Your task to perform on an android device: turn on the 24-hour format for clock Image 0: 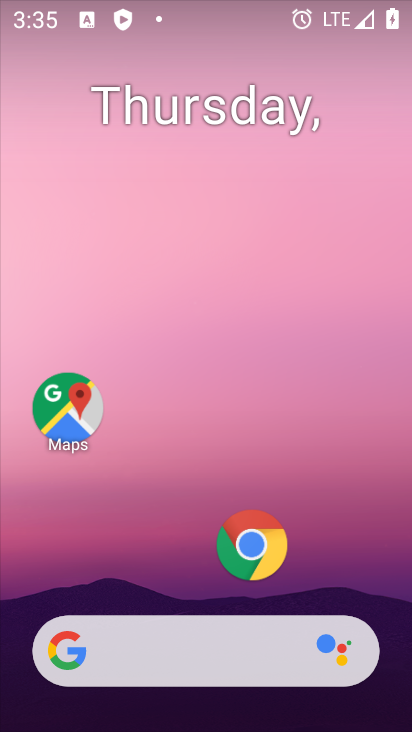
Step 0: drag from (336, 594) to (383, 22)
Your task to perform on an android device: turn on the 24-hour format for clock Image 1: 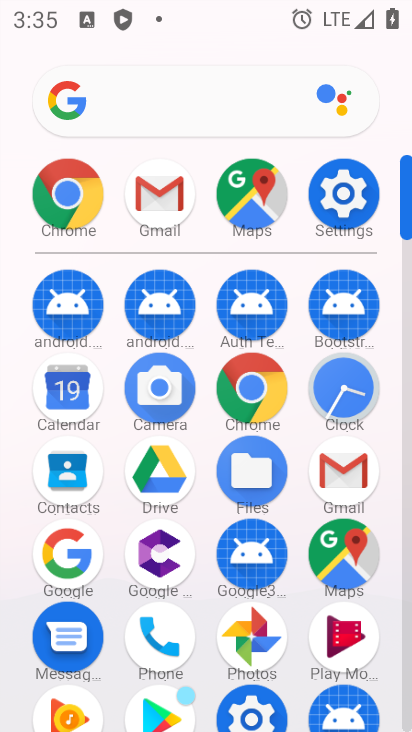
Step 1: click (327, 396)
Your task to perform on an android device: turn on the 24-hour format for clock Image 2: 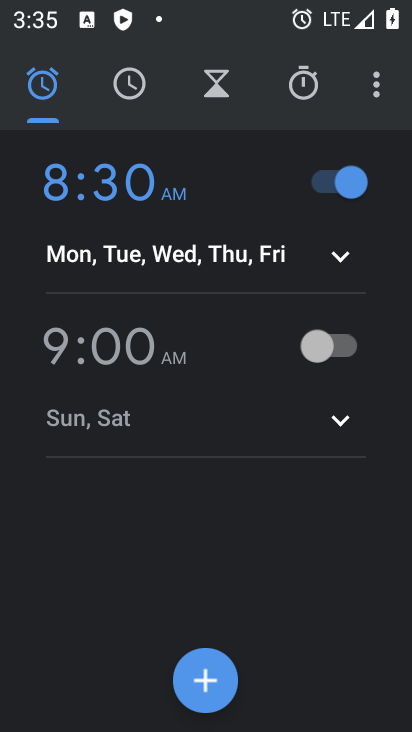
Step 2: click (373, 84)
Your task to perform on an android device: turn on the 24-hour format for clock Image 3: 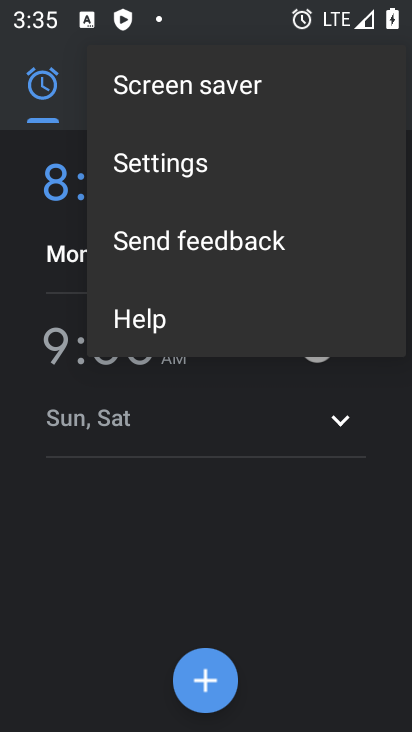
Step 3: click (180, 173)
Your task to perform on an android device: turn on the 24-hour format for clock Image 4: 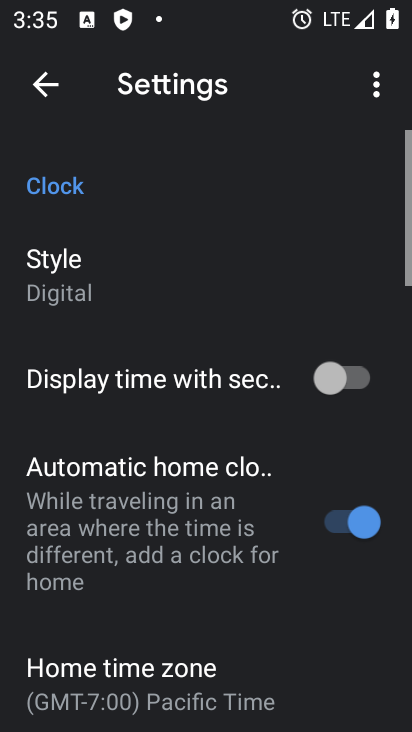
Step 4: drag from (308, 669) to (230, 105)
Your task to perform on an android device: turn on the 24-hour format for clock Image 5: 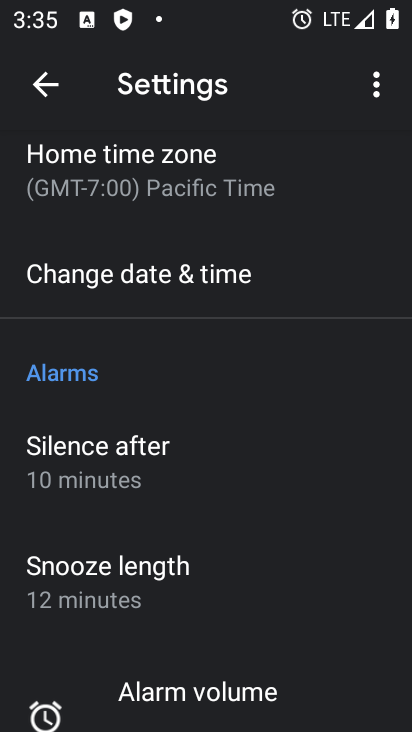
Step 5: click (219, 470)
Your task to perform on an android device: turn on the 24-hour format for clock Image 6: 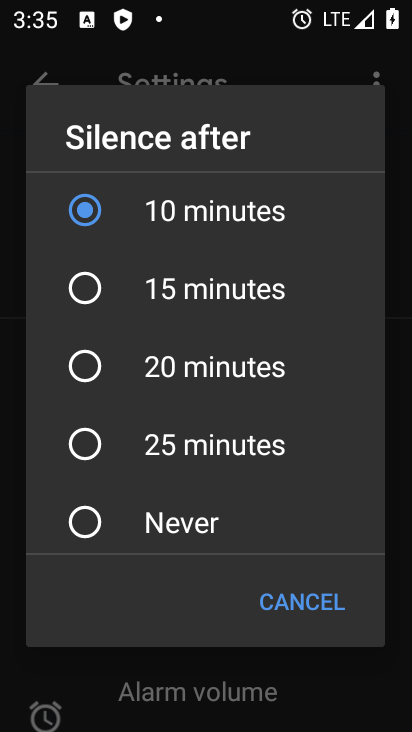
Step 6: click (295, 602)
Your task to perform on an android device: turn on the 24-hour format for clock Image 7: 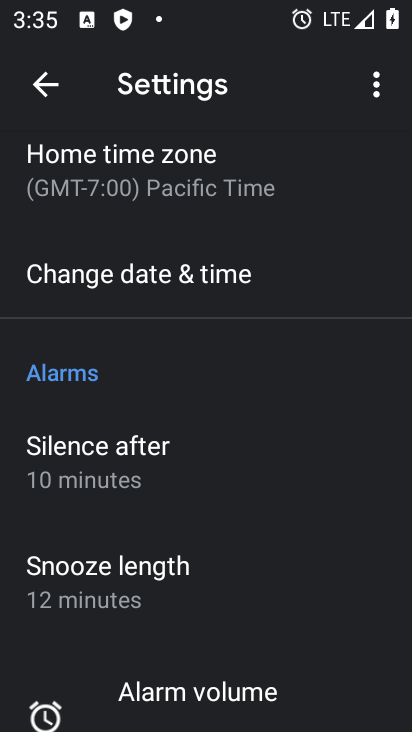
Step 7: drag from (223, 597) to (206, 513)
Your task to perform on an android device: turn on the 24-hour format for clock Image 8: 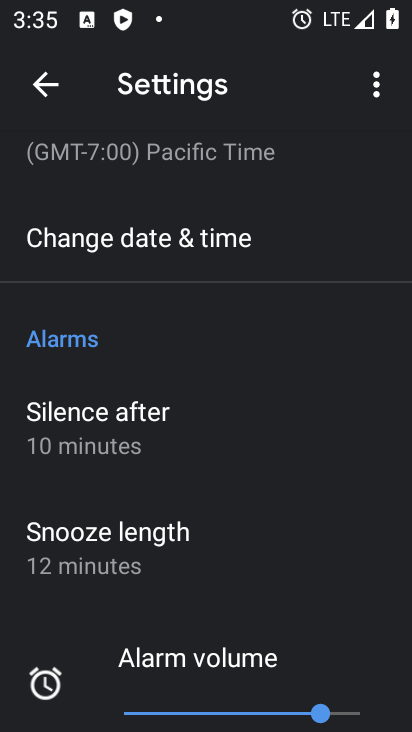
Step 8: click (179, 253)
Your task to perform on an android device: turn on the 24-hour format for clock Image 9: 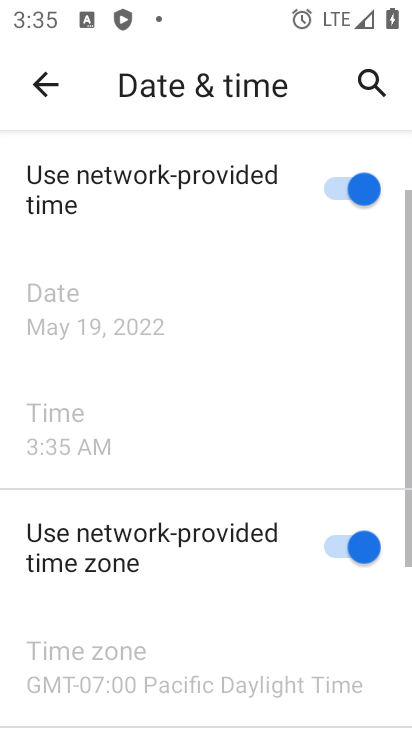
Step 9: drag from (228, 626) to (248, 198)
Your task to perform on an android device: turn on the 24-hour format for clock Image 10: 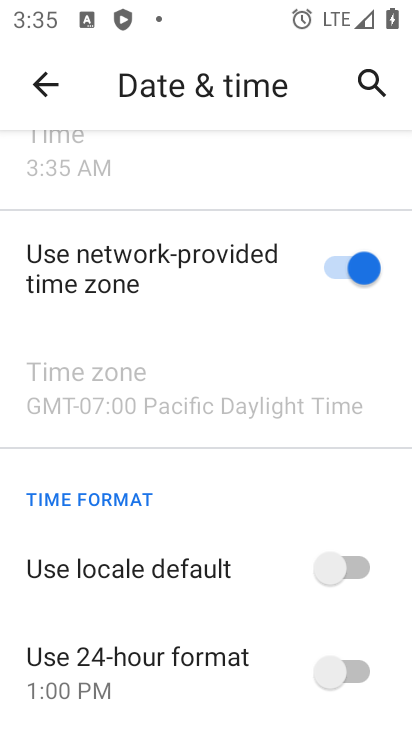
Step 10: drag from (253, 697) to (287, 328)
Your task to perform on an android device: turn on the 24-hour format for clock Image 11: 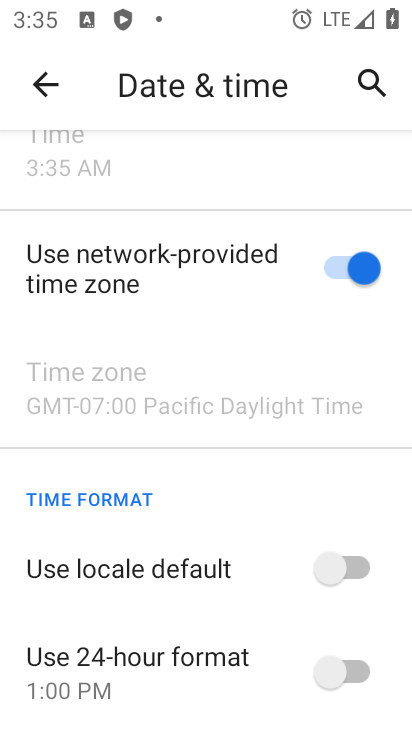
Step 11: click (355, 665)
Your task to perform on an android device: turn on the 24-hour format for clock Image 12: 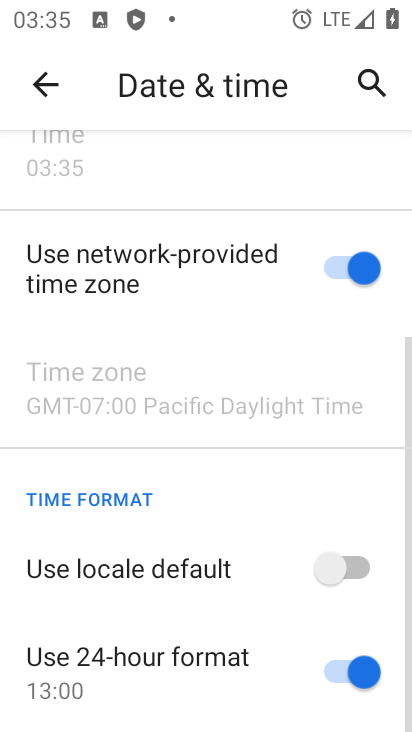
Step 12: task complete